Your task to perform on an android device: change the clock display to analog Image 0: 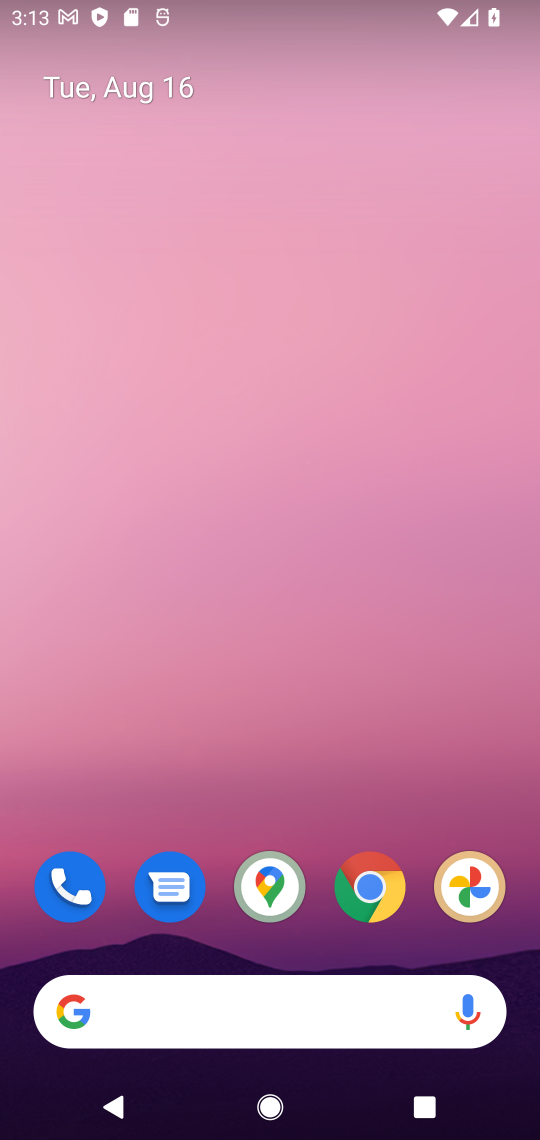
Step 0: drag from (215, 682) to (221, 85)
Your task to perform on an android device: change the clock display to analog Image 1: 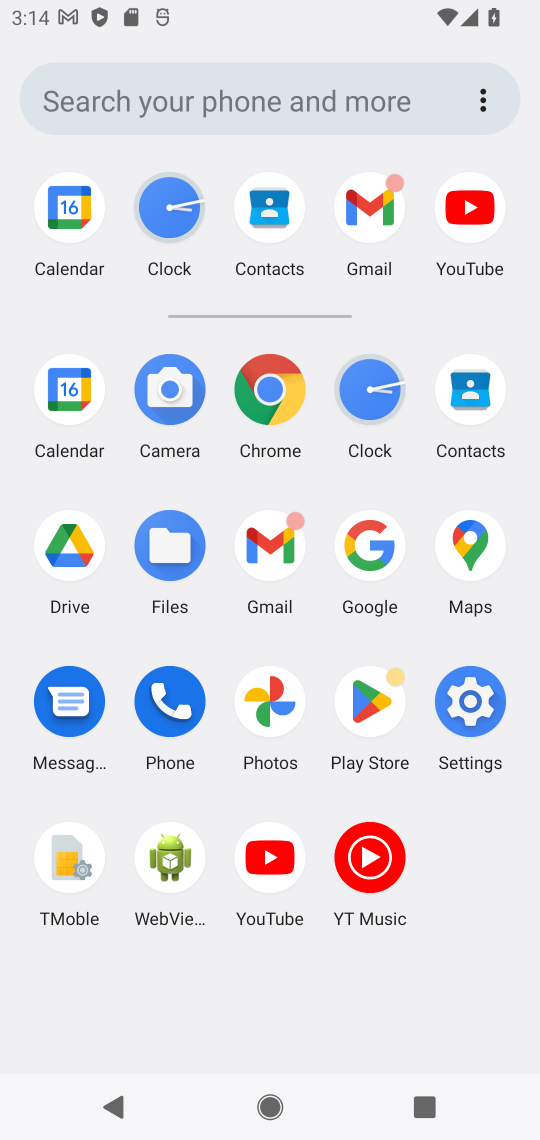
Step 1: click (362, 394)
Your task to perform on an android device: change the clock display to analog Image 2: 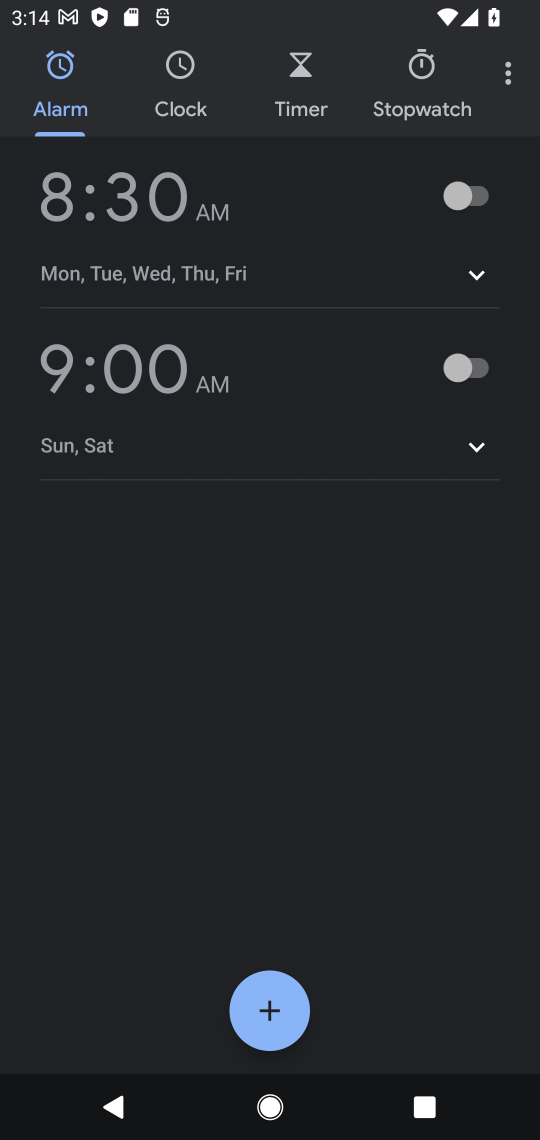
Step 2: click (517, 54)
Your task to perform on an android device: change the clock display to analog Image 3: 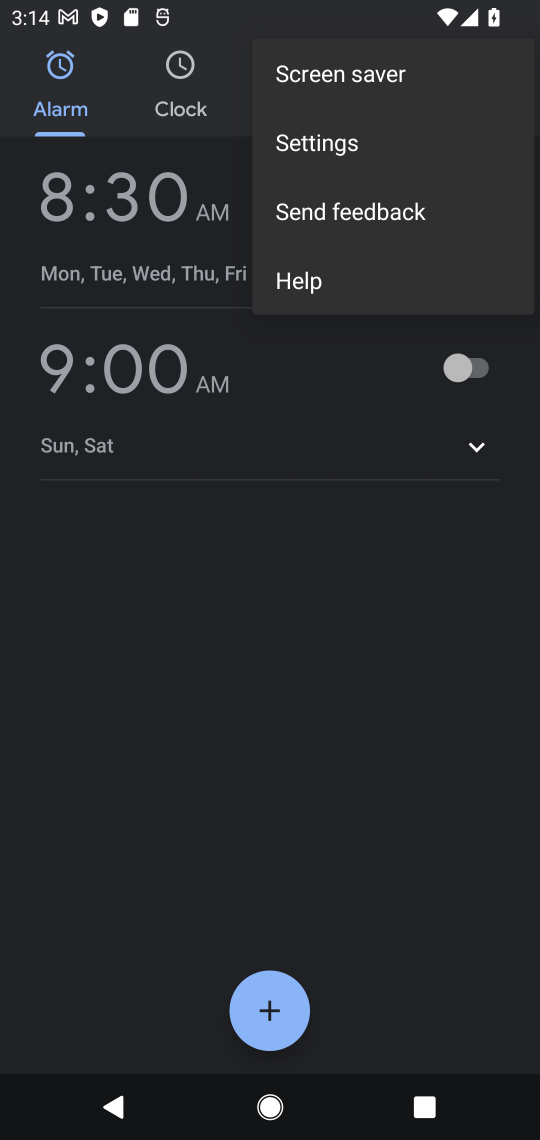
Step 3: click (317, 149)
Your task to perform on an android device: change the clock display to analog Image 4: 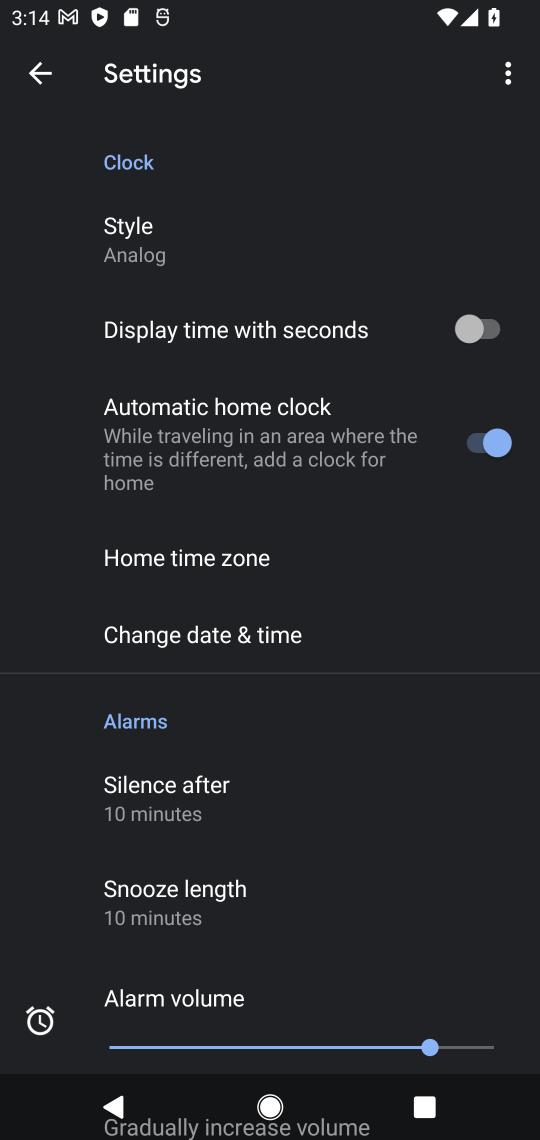
Step 4: task complete